Your task to perform on an android device: turn on the 24-hour format for clock Image 0: 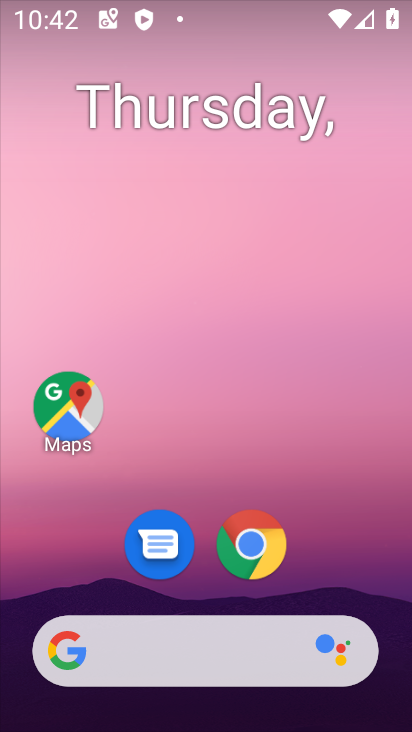
Step 0: drag from (333, 553) to (200, 32)
Your task to perform on an android device: turn on the 24-hour format for clock Image 1: 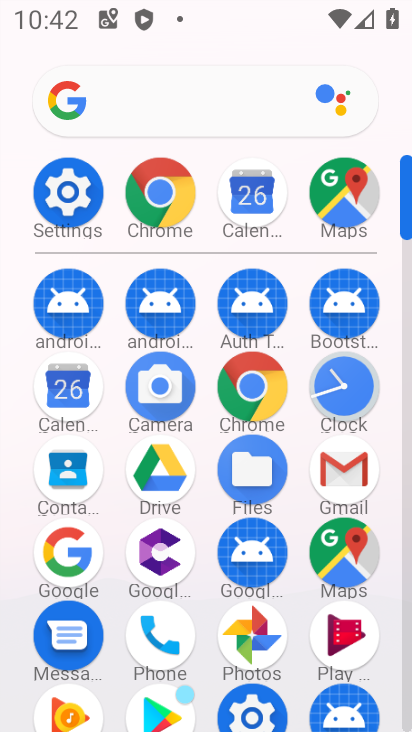
Step 1: drag from (15, 556) to (18, 211)
Your task to perform on an android device: turn on the 24-hour format for clock Image 2: 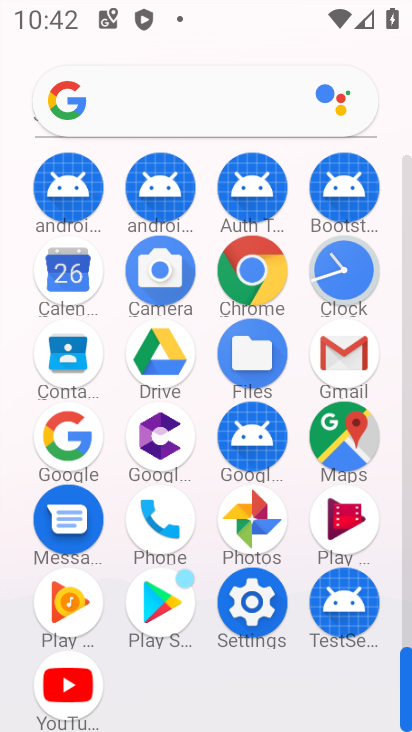
Step 2: click (344, 267)
Your task to perform on an android device: turn on the 24-hour format for clock Image 3: 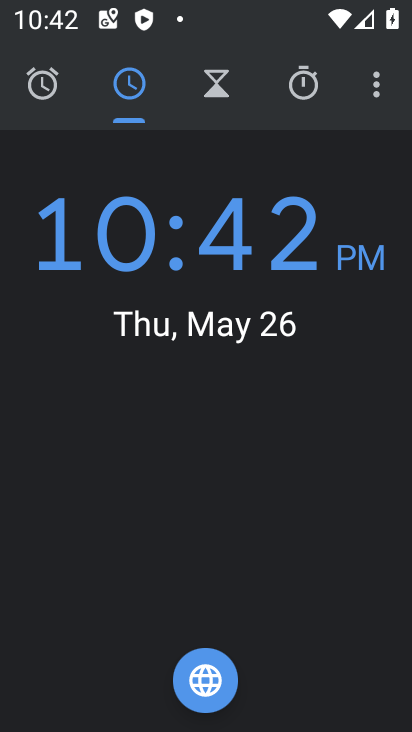
Step 3: drag from (372, 96) to (284, 156)
Your task to perform on an android device: turn on the 24-hour format for clock Image 4: 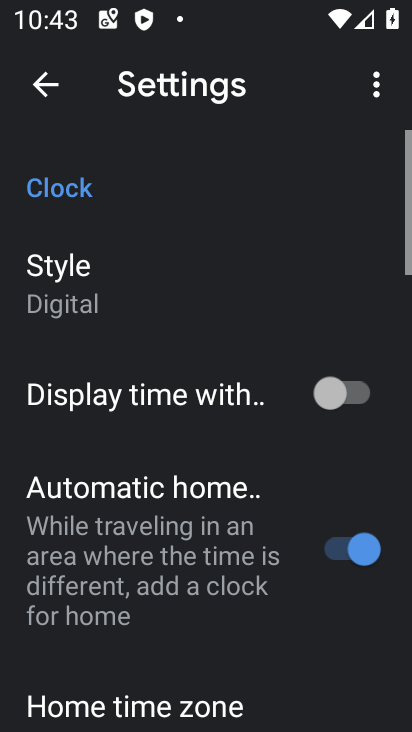
Step 4: drag from (198, 487) to (211, 142)
Your task to perform on an android device: turn on the 24-hour format for clock Image 5: 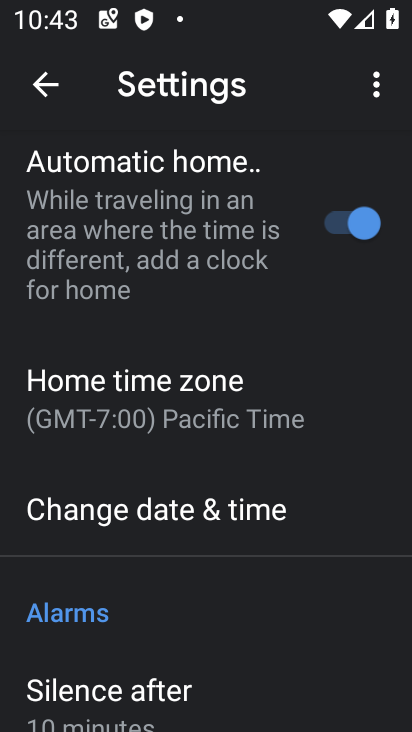
Step 5: click (163, 515)
Your task to perform on an android device: turn on the 24-hour format for clock Image 6: 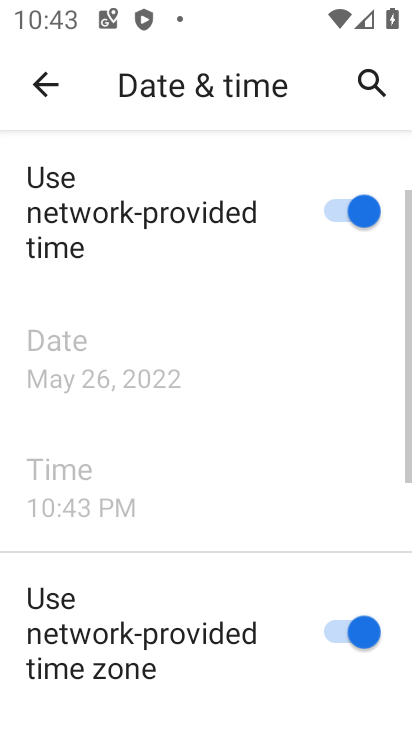
Step 6: drag from (208, 613) to (217, 260)
Your task to perform on an android device: turn on the 24-hour format for clock Image 7: 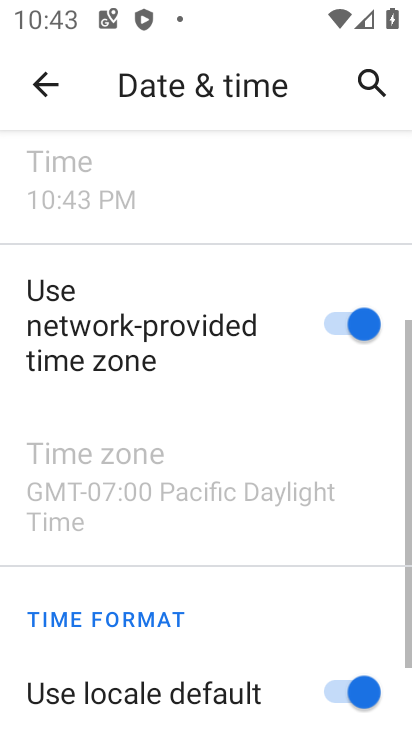
Step 7: drag from (187, 415) to (202, 230)
Your task to perform on an android device: turn on the 24-hour format for clock Image 8: 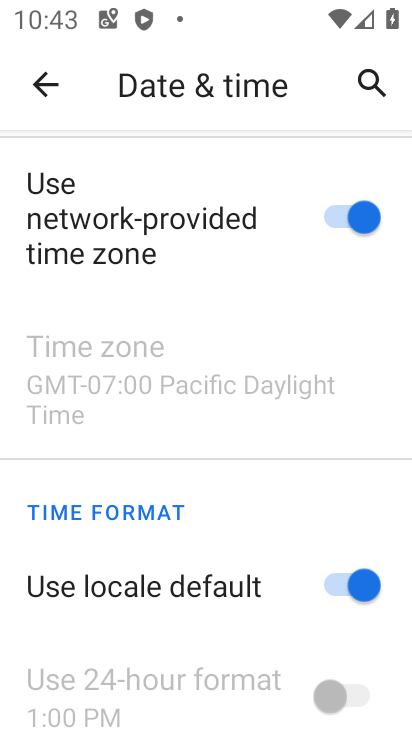
Step 8: click (340, 581)
Your task to perform on an android device: turn on the 24-hour format for clock Image 9: 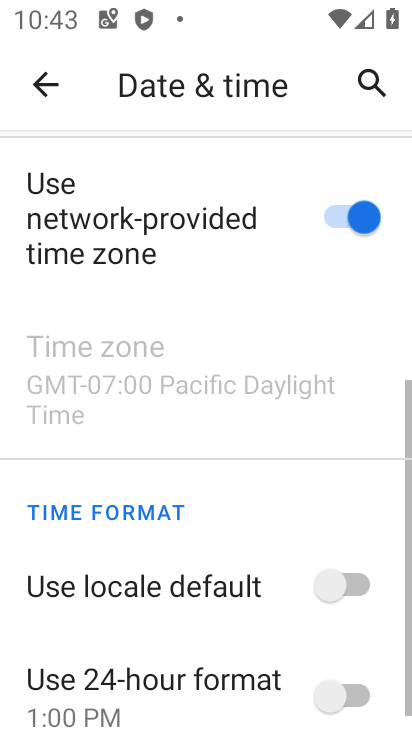
Step 9: click (349, 691)
Your task to perform on an android device: turn on the 24-hour format for clock Image 10: 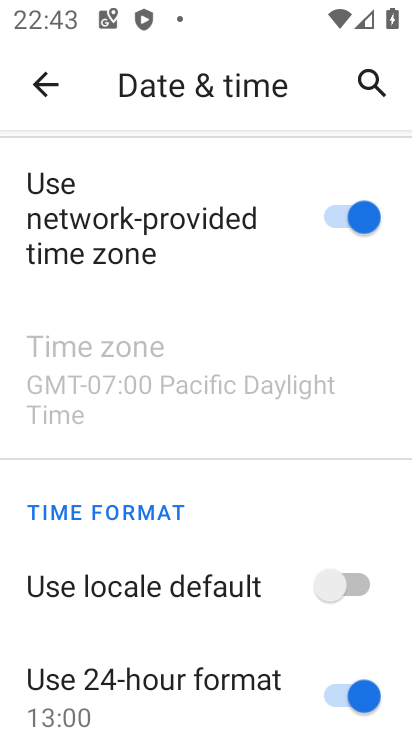
Step 10: task complete